Your task to perform on an android device: show emergency info Image 0: 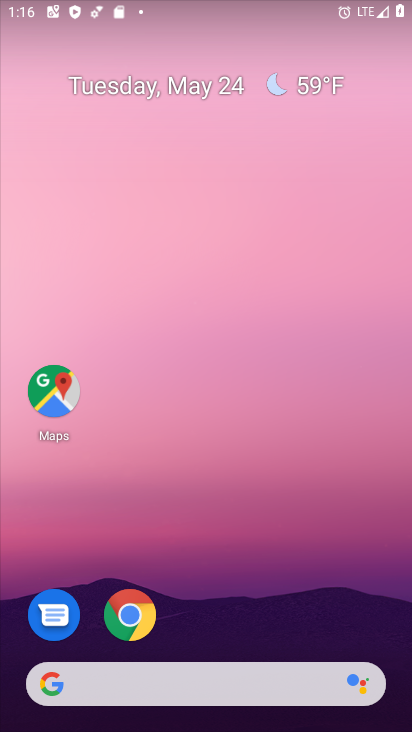
Step 0: drag from (217, 216) to (217, 25)
Your task to perform on an android device: show emergency info Image 1: 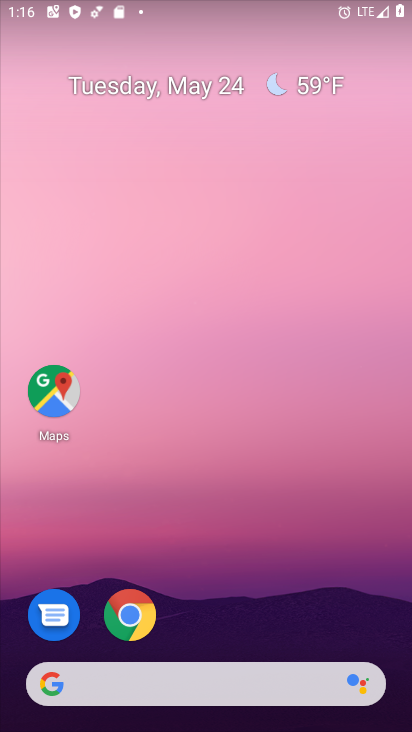
Step 1: drag from (260, 594) to (226, 49)
Your task to perform on an android device: show emergency info Image 2: 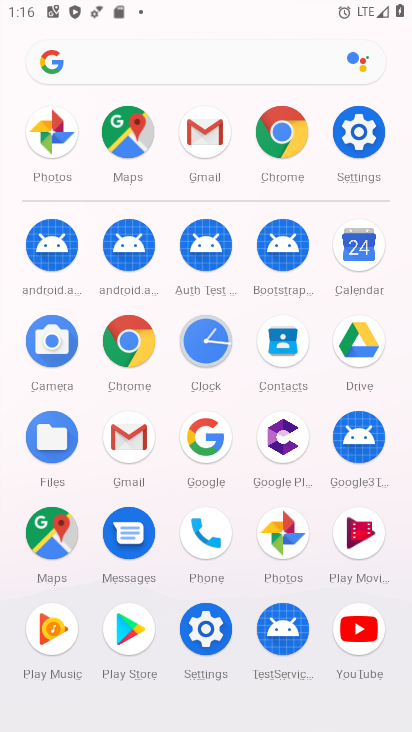
Step 2: drag from (8, 620) to (27, 245)
Your task to perform on an android device: show emergency info Image 3: 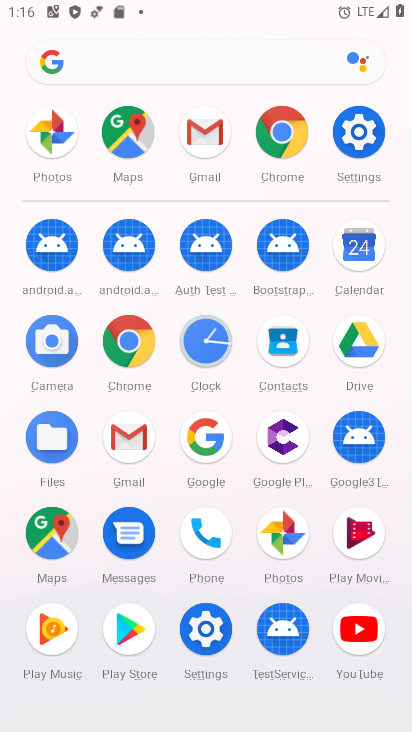
Step 3: click (201, 621)
Your task to perform on an android device: show emergency info Image 4: 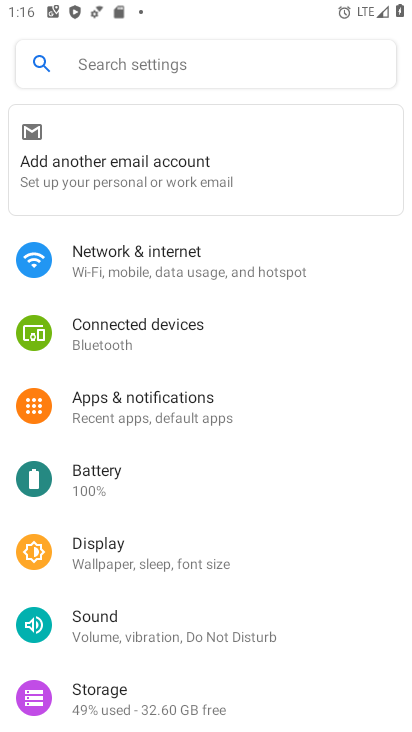
Step 4: drag from (298, 572) to (298, 172)
Your task to perform on an android device: show emergency info Image 5: 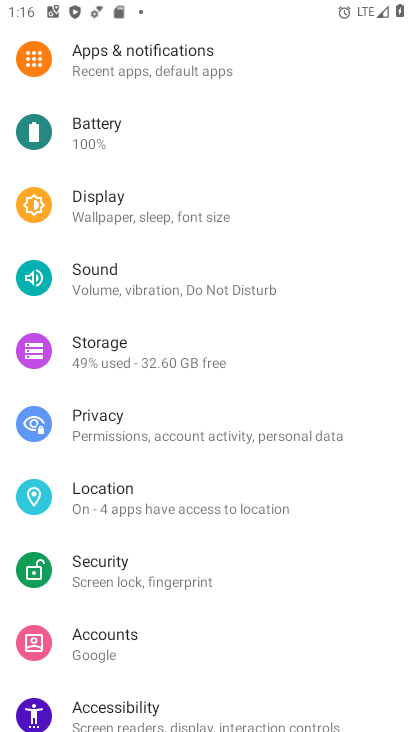
Step 5: drag from (248, 600) to (247, 123)
Your task to perform on an android device: show emergency info Image 6: 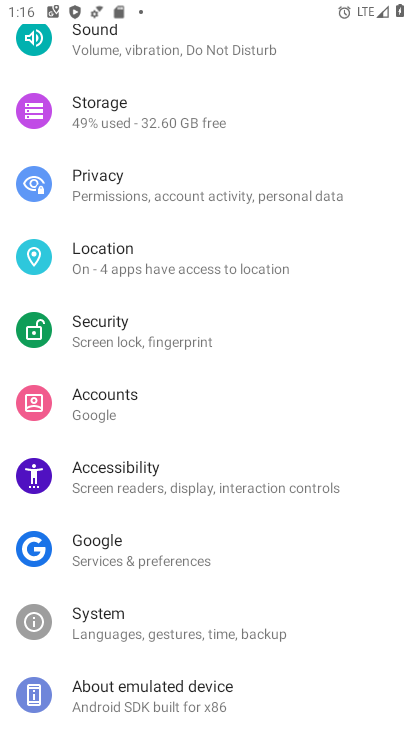
Step 6: drag from (230, 665) to (274, 145)
Your task to perform on an android device: show emergency info Image 7: 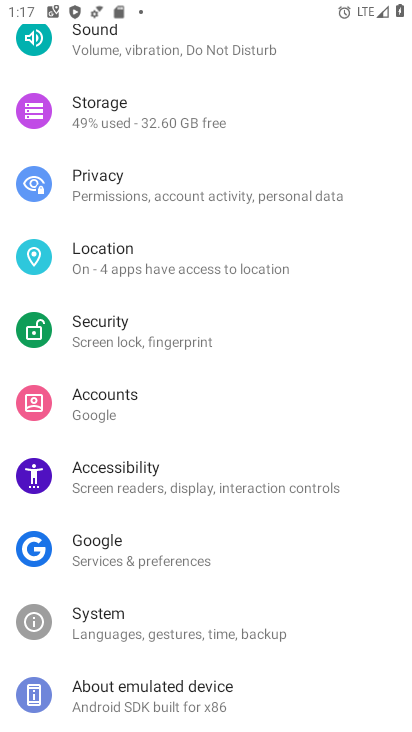
Step 7: click (172, 673)
Your task to perform on an android device: show emergency info Image 8: 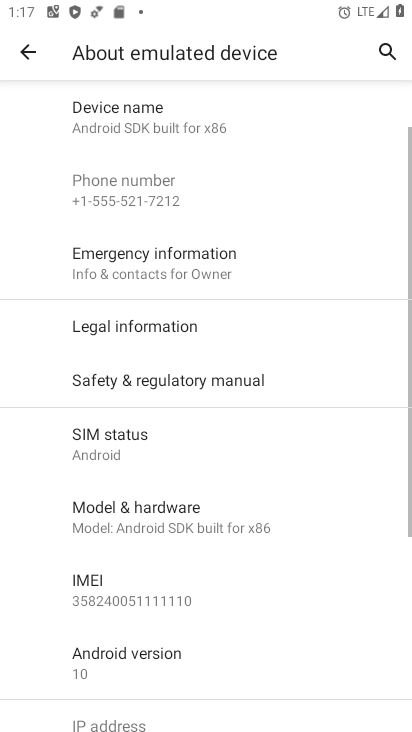
Step 8: task complete